Your task to perform on an android device: open the mobile data screen to see how much data has been used Image 0: 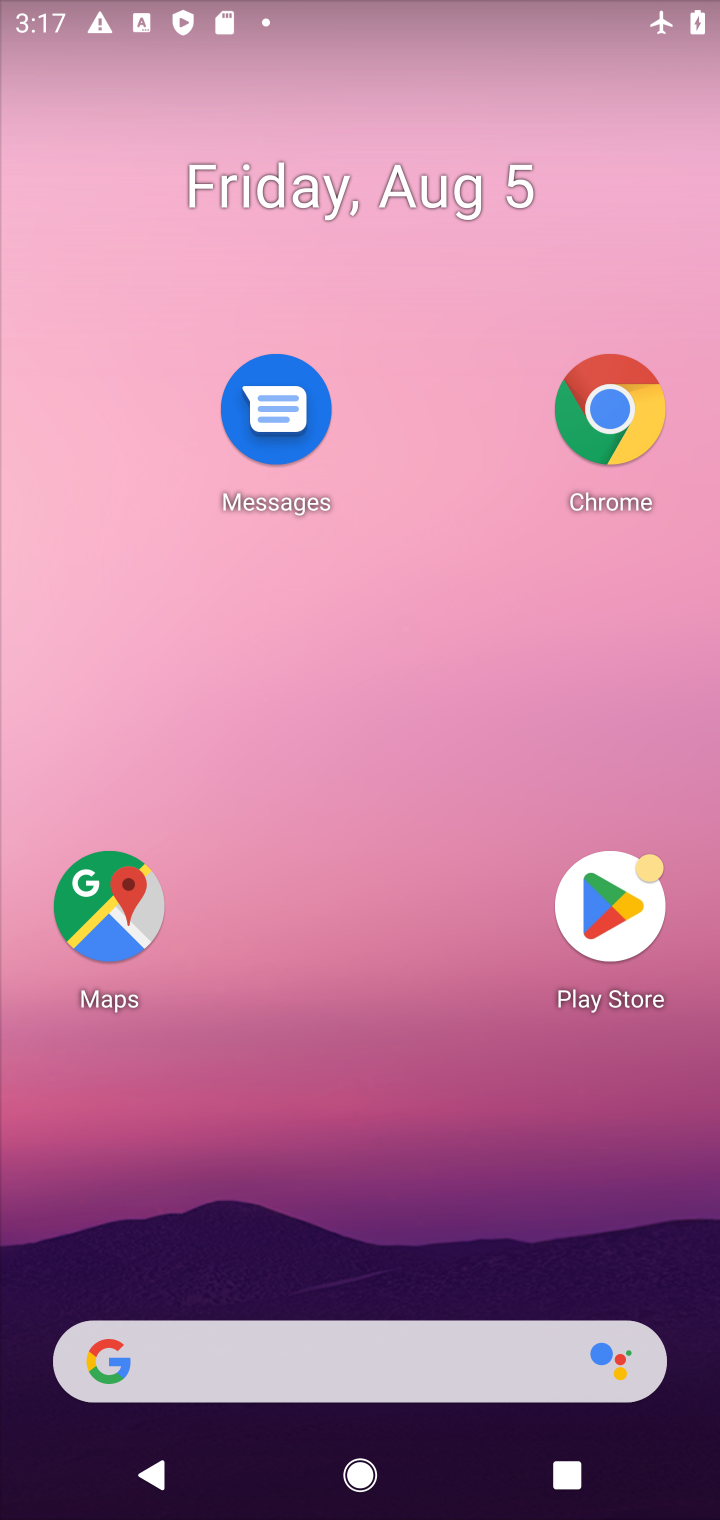
Step 0: drag from (340, 1023) to (321, 312)
Your task to perform on an android device: open the mobile data screen to see how much data has been used Image 1: 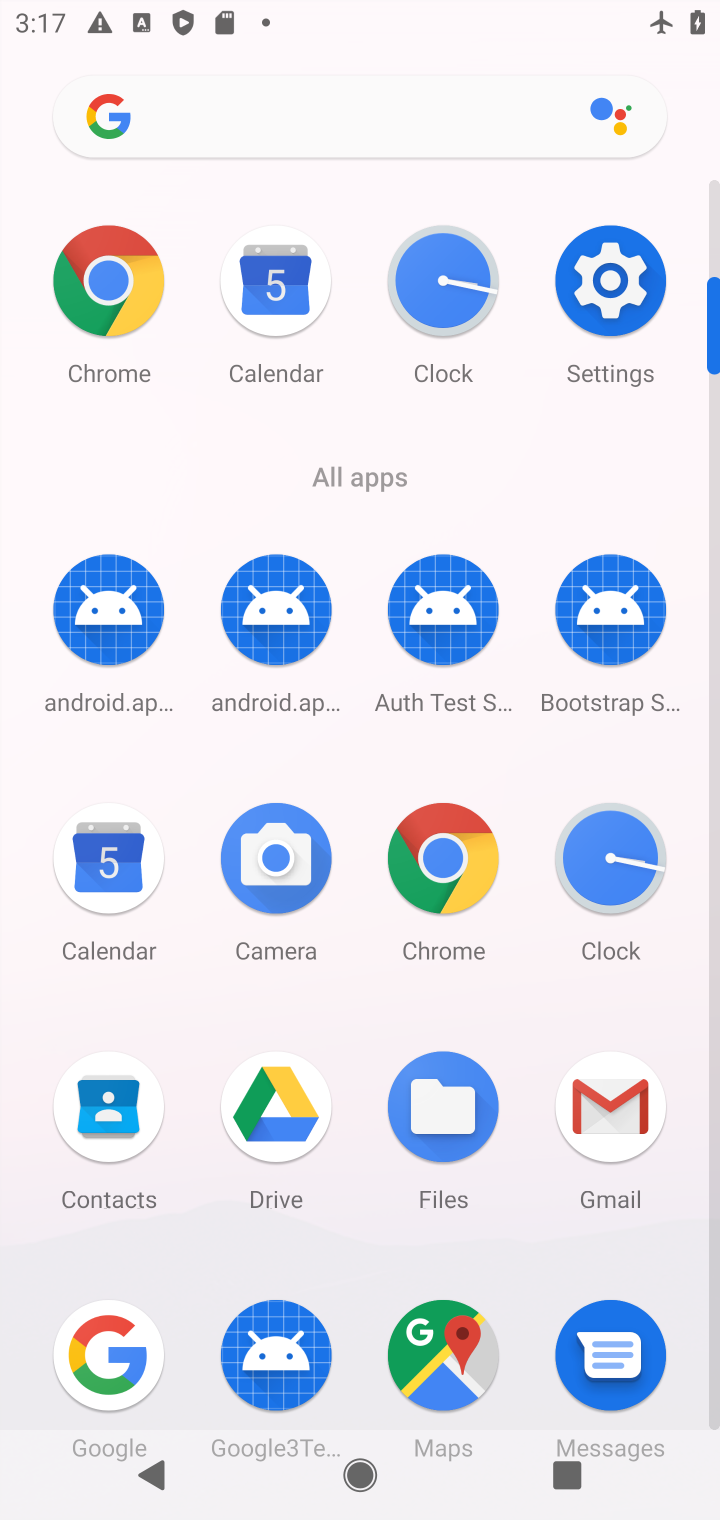
Step 1: click (549, 314)
Your task to perform on an android device: open the mobile data screen to see how much data has been used Image 2: 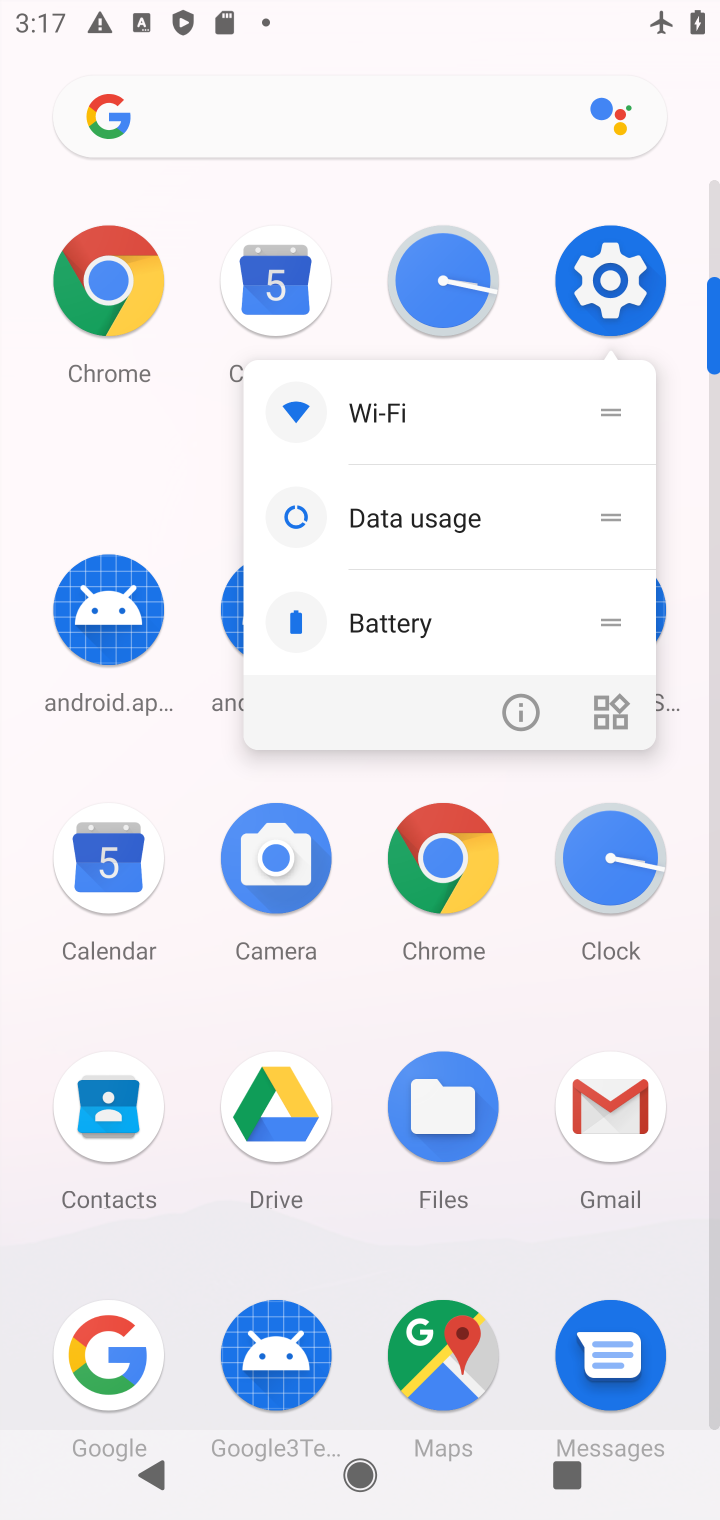
Step 2: click (580, 303)
Your task to perform on an android device: open the mobile data screen to see how much data has been used Image 3: 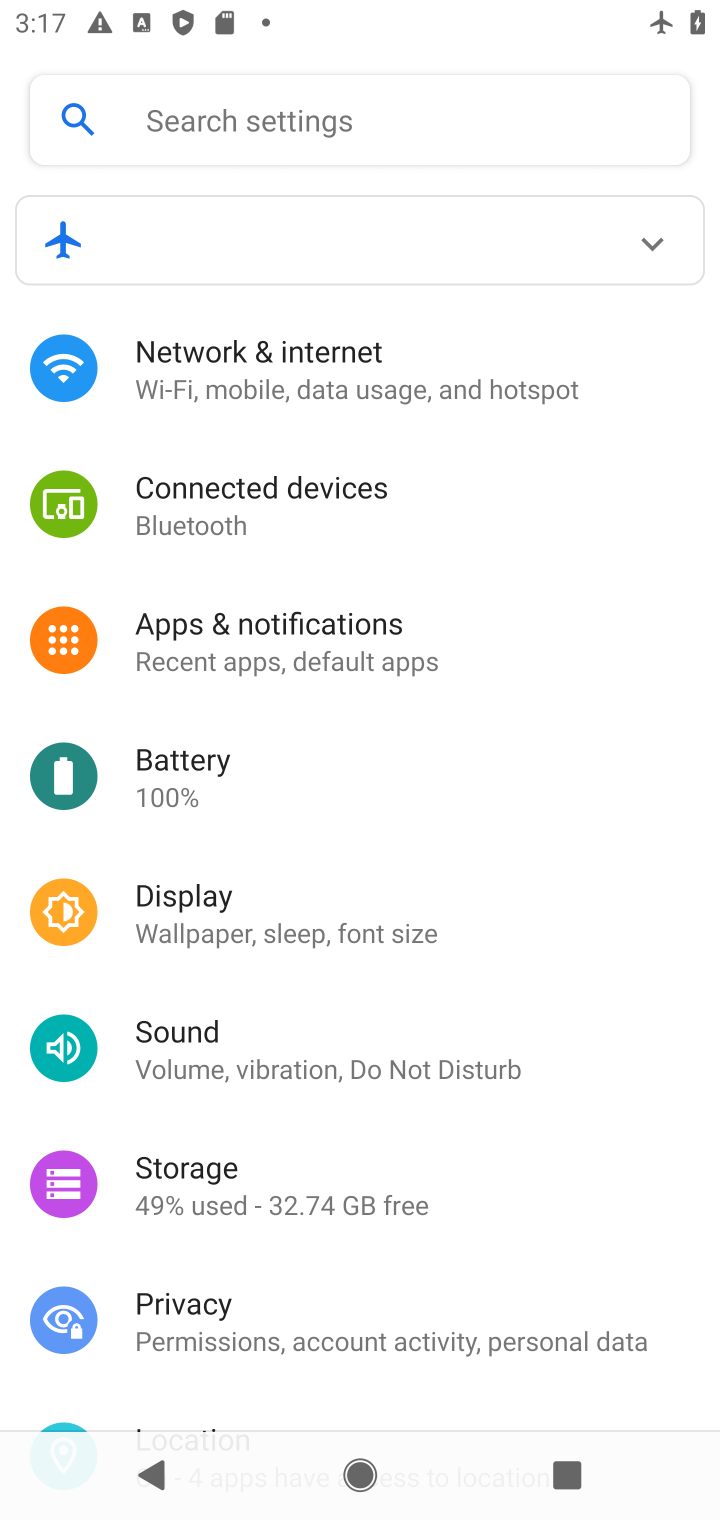
Step 3: click (363, 356)
Your task to perform on an android device: open the mobile data screen to see how much data has been used Image 4: 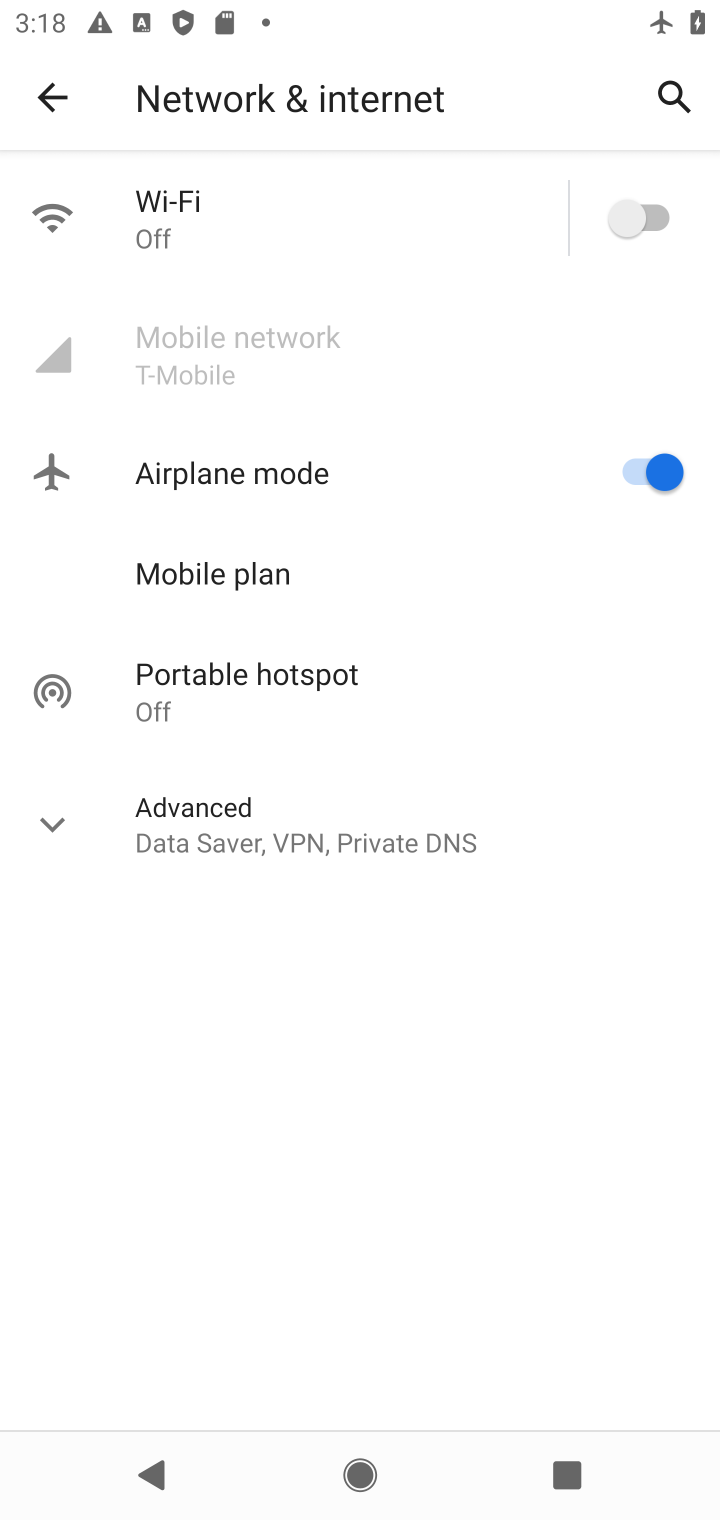
Step 4: task complete